Your task to perform on an android device: Open accessibility settings Image 0: 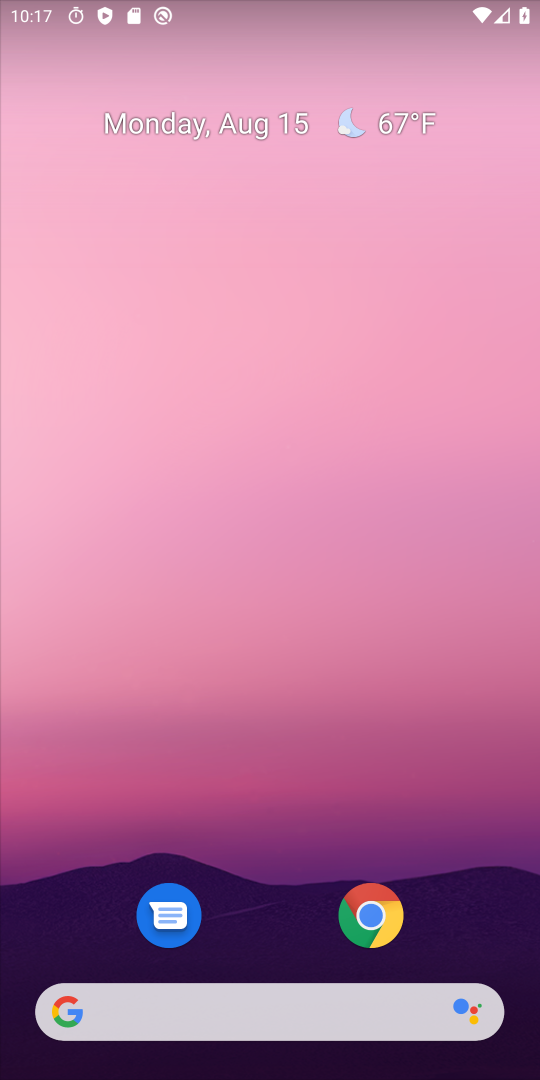
Step 0: drag from (499, 930) to (476, 271)
Your task to perform on an android device: Open accessibility settings Image 1: 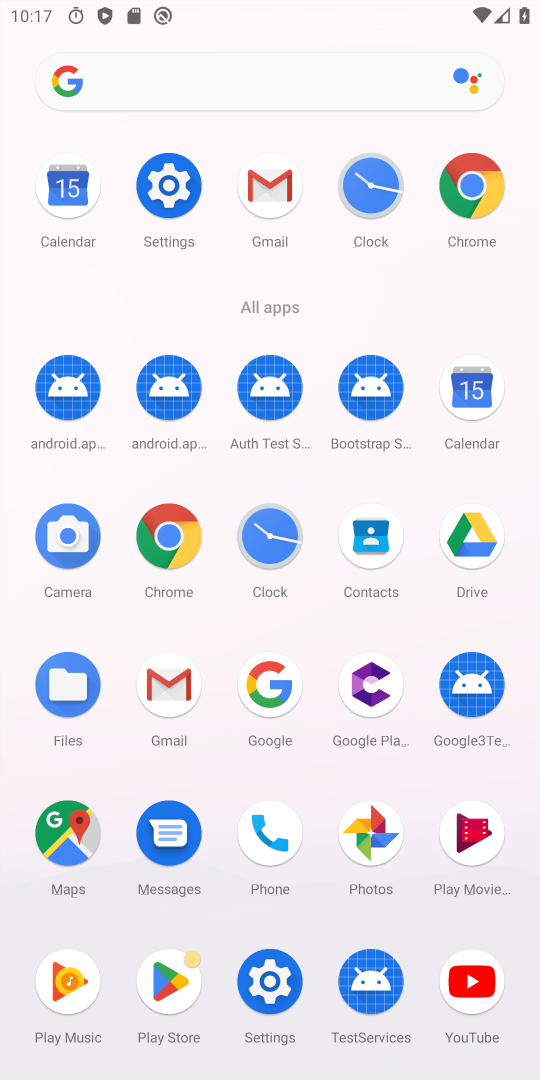
Step 1: click (268, 999)
Your task to perform on an android device: Open accessibility settings Image 2: 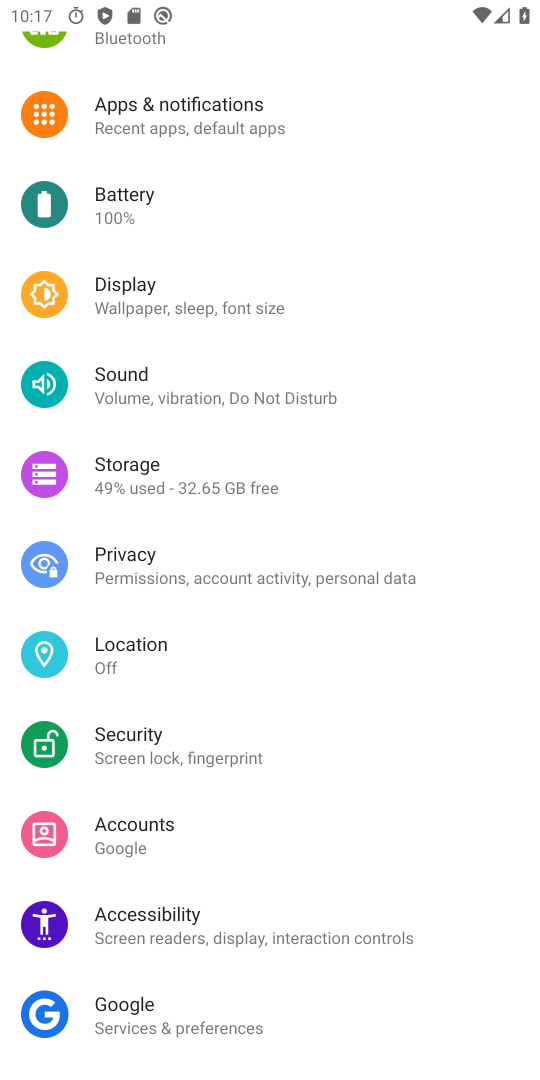
Step 2: click (200, 933)
Your task to perform on an android device: Open accessibility settings Image 3: 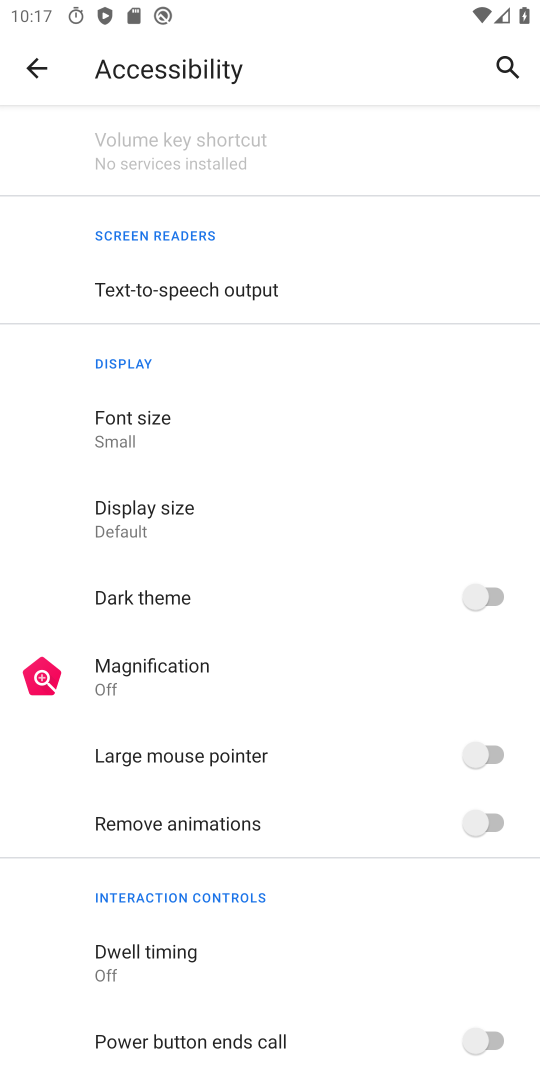
Step 3: task complete